Your task to perform on an android device: Open the stopwatch Image 0: 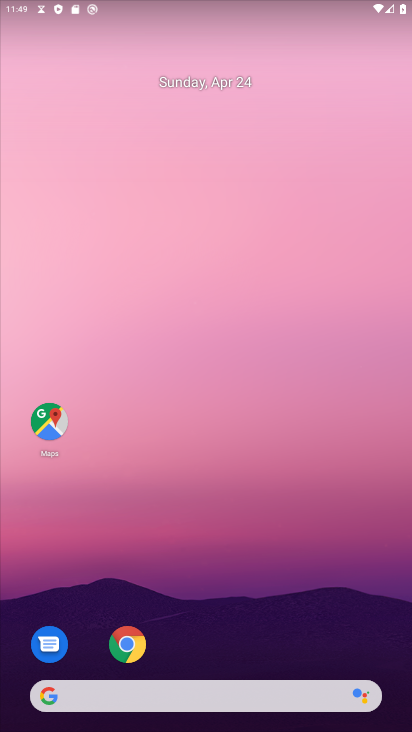
Step 0: drag from (353, 538) to (360, 95)
Your task to perform on an android device: Open the stopwatch Image 1: 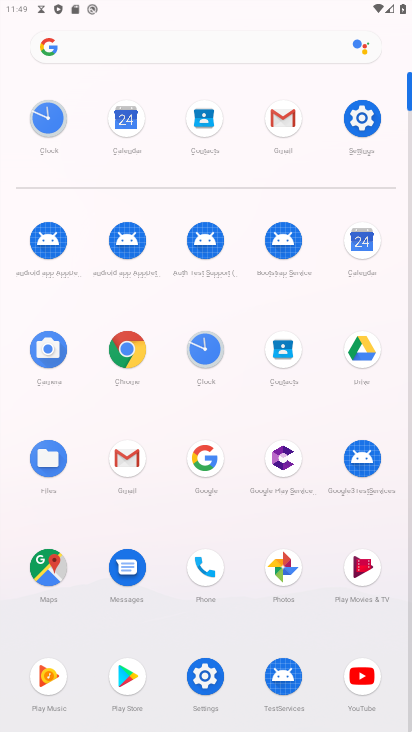
Step 1: click (45, 119)
Your task to perform on an android device: Open the stopwatch Image 2: 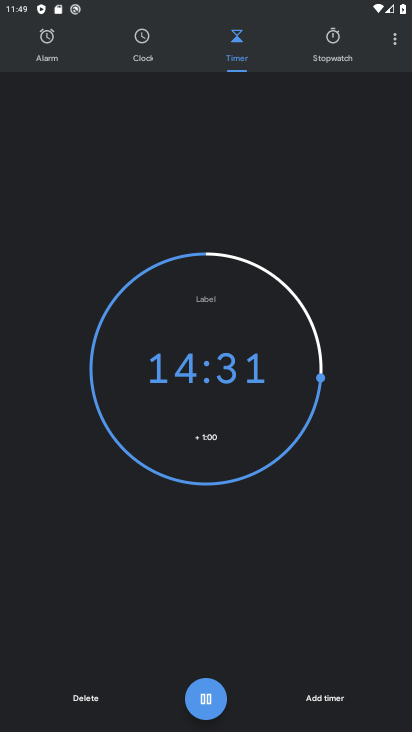
Step 2: click (335, 46)
Your task to perform on an android device: Open the stopwatch Image 3: 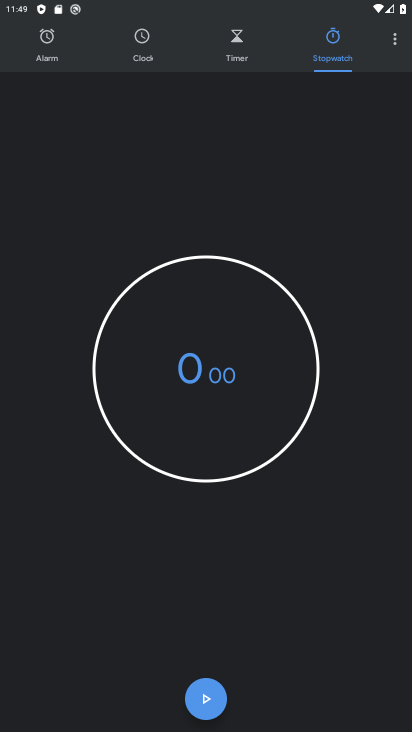
Step 3: task complete